Your task to perform on an android device: Open Maps and search for coffee Image 0: 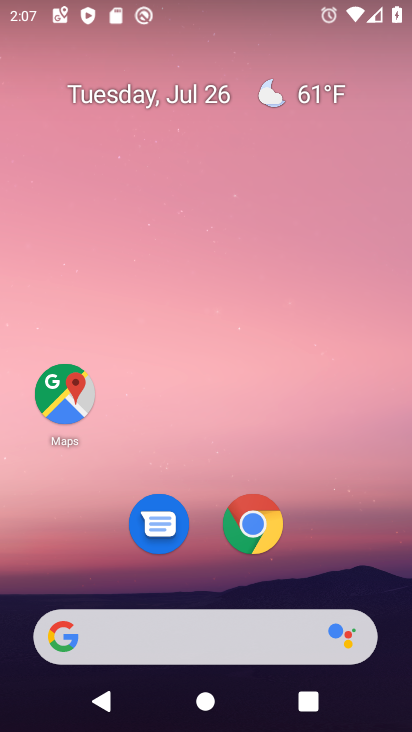
Step 0: press home button
Your task to perform on an android device: Open Maps and search for coffee Image 1: 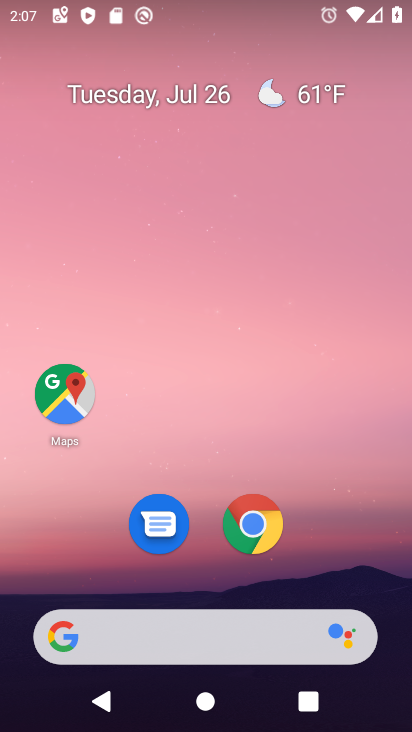
Step 1: click (62, 419)
Your task to perform on an android device: Open Maps and search for coffee Image 2: 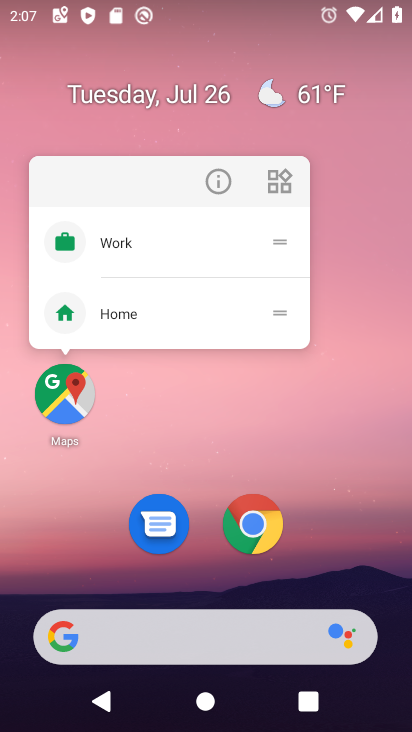
Step 2: click (62, 397)
Your task to perform on an android device: Open Maps and search for coffee Image 3: 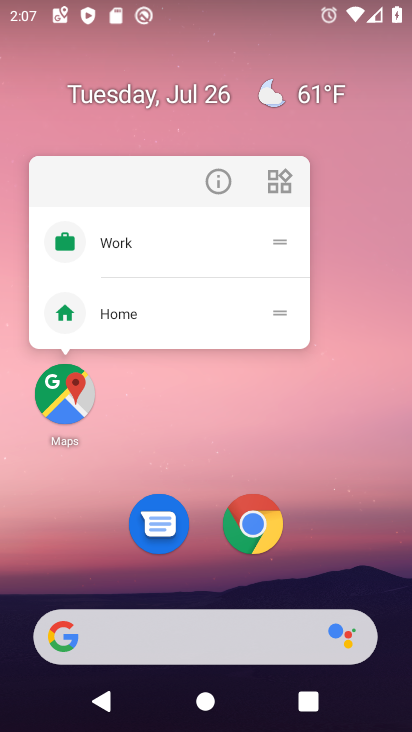
Step 3: click (64, 401)
Your task to perform on an android device: Open Maps and search for coffee Image 4: 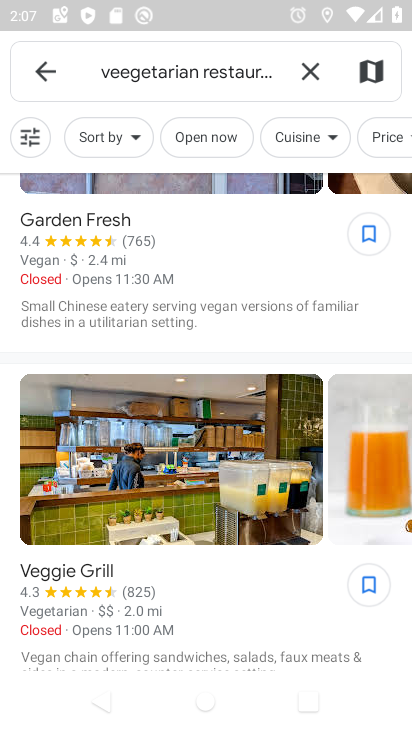
Step 4: click (315, 68)
Your task to perform on an android device: Open Maps and search for coffee Image 5: 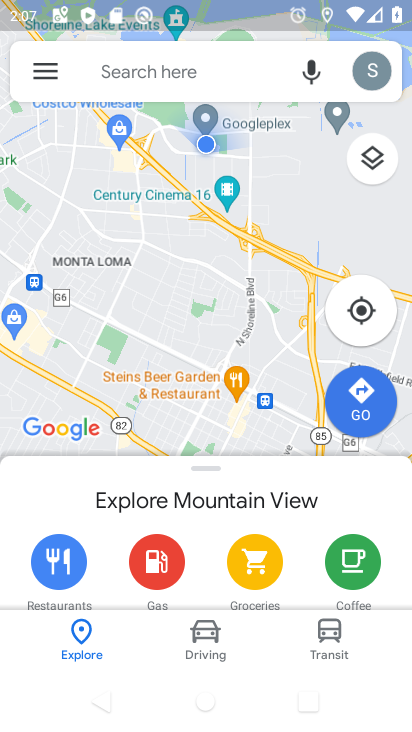
Step 5: click (148, 73)
Your task to perform on an android device: Open Maps and search for coffee Image 6: 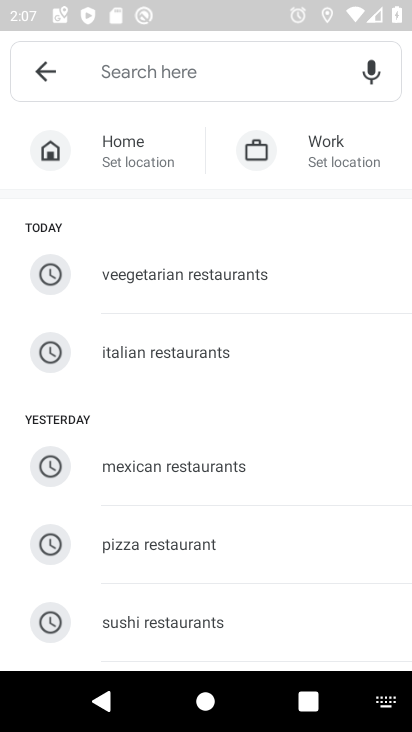
Step 6: drag from (253, 525) to (311, 270)
Your task to perform on an android device: Open Maps and search for coffee Image 7: 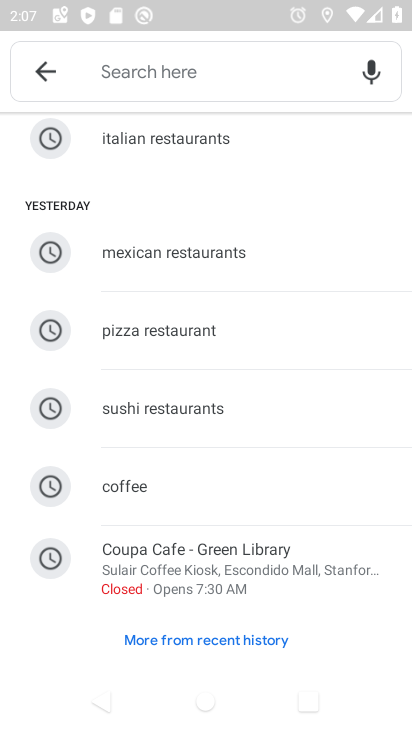
Step 7: click (150, 485)
Your task to perform on an android device: Open Maps and search for coffee Image 8: 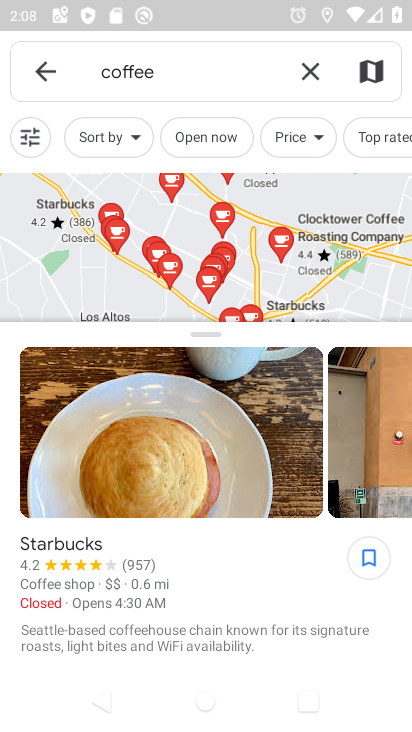
Step 8: task complete